Your task to perform on an android device: Go to Android settings Image 0: 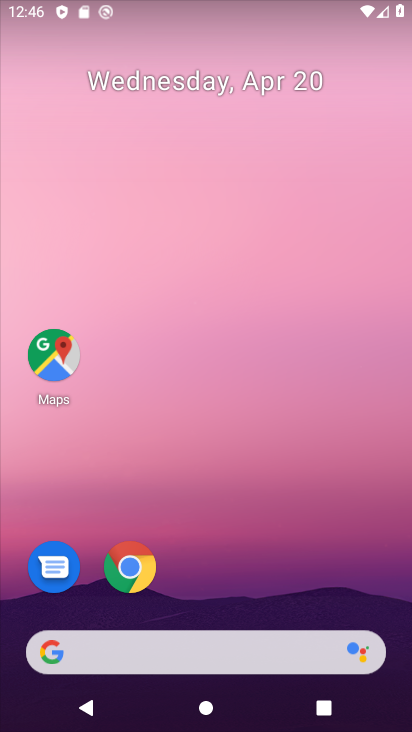
Step 0: drag from (128, 386) to (203, 186)
Your task to perform on an android device: Go to Android settings Image 1: 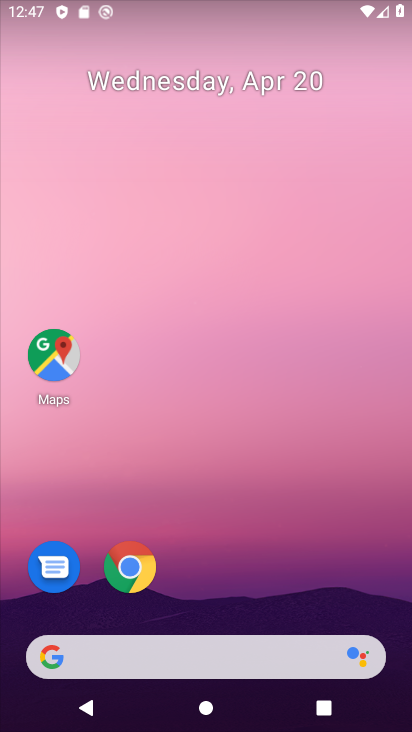
Step 1: drag from (175, 396) to (276, 218)
Your task to perform on an android device: Go to Android settings Image 2: 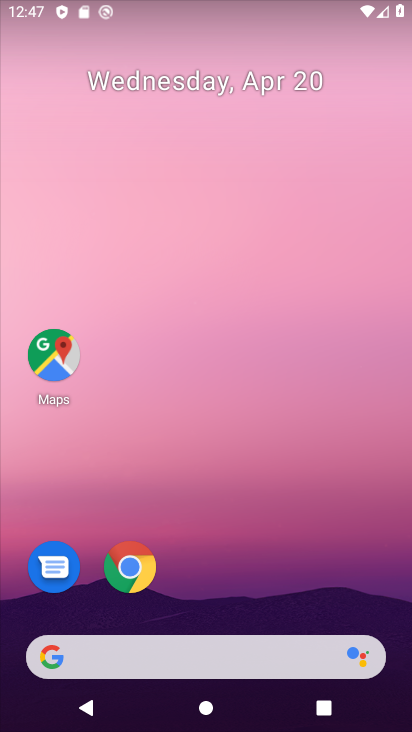
Step 2: drag from (37, 604) to (276, 140)
Your task to perform on an android device: Go to Android settings Image 3: 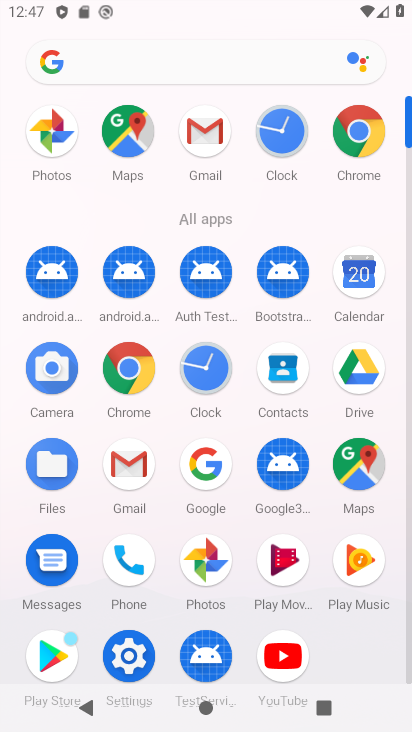
Step 3: click (114, 279)
Your task to perform on an android device: Go to Android settings Image 4: 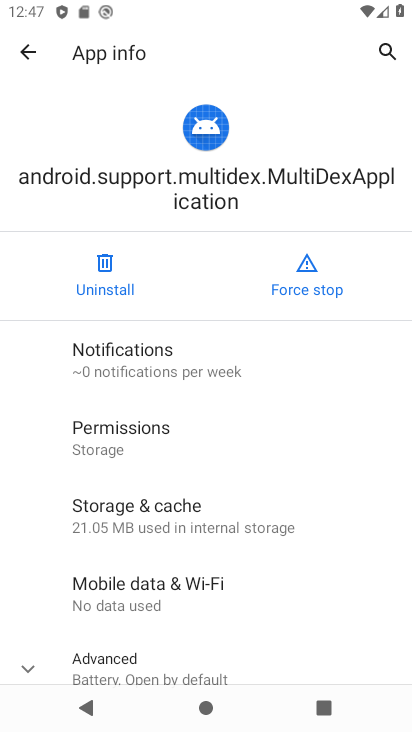
Step 4: press back button
Your task to perform on an android device: Go to Android settings Image 5: 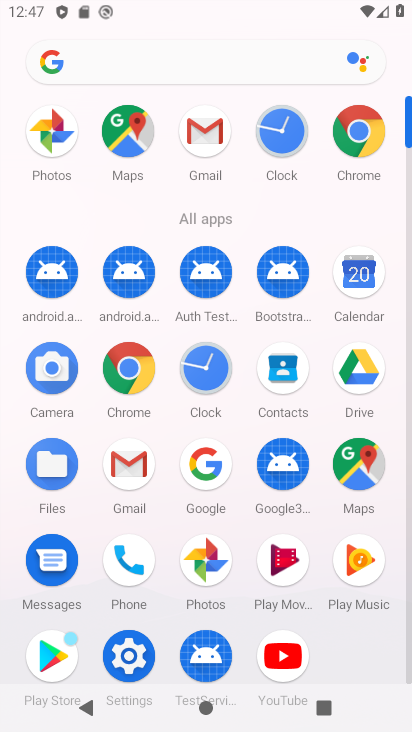
Step 5: click (48, 276)
Your task to perform on an android device: Go to Android settings Image 6: 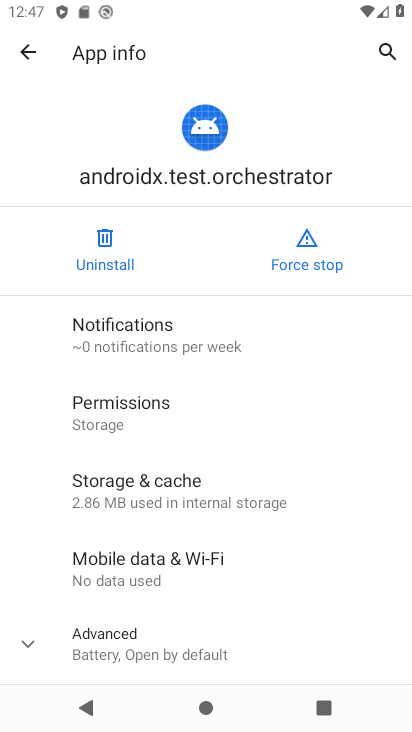
Step 6: task complete